Your task to perform on an android device: turn on sleep mode Image 0: 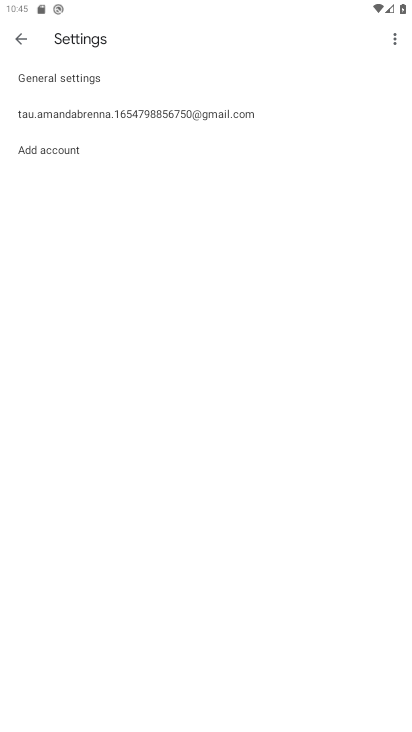
Step 0: press home button
Your task to perform on an android device: turn on sleep mode Image 1: 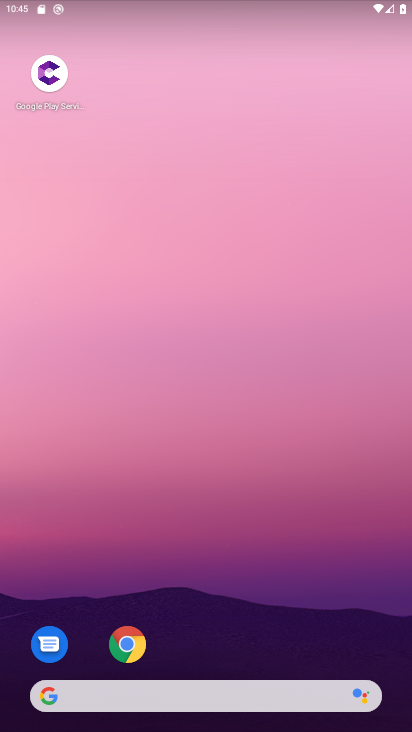
Step 1: drag from (232, 596) to (222, 110)
Your task to perform on an android device: turn on sleep mode Image 2: 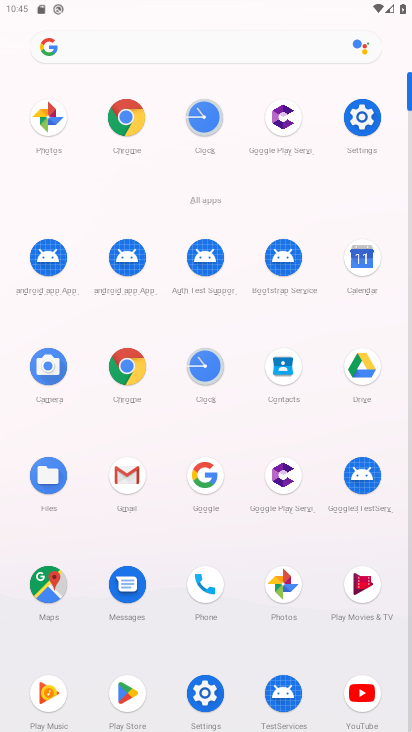
Step 2: click (362, 117)
Your task to perform on an android device: turn on sleep mode Image 3: 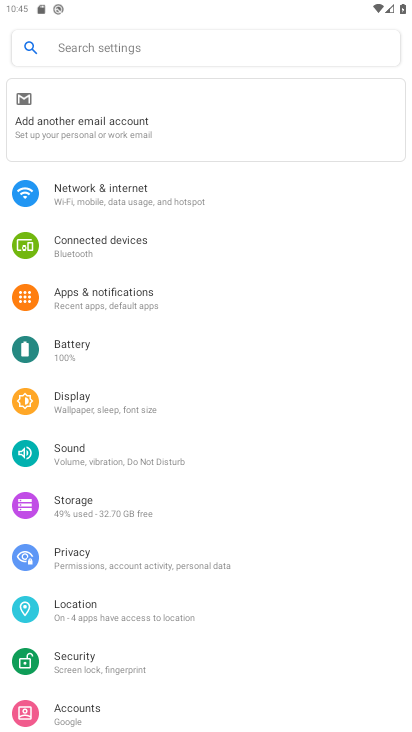
Step 3: click (152, 392)
Your task to perform on an android device: turn on sleep mode Image 4: 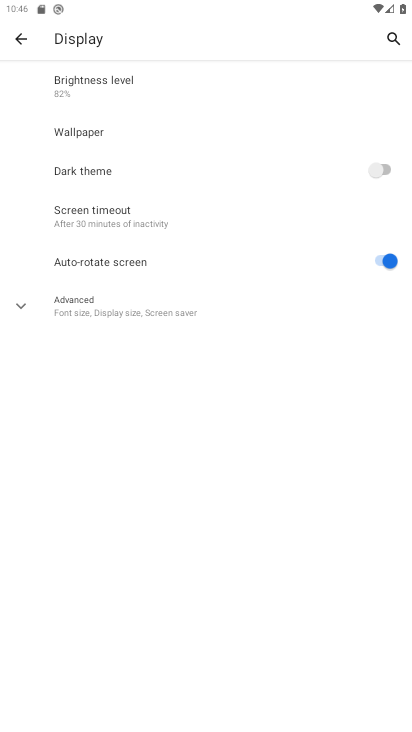
Step 4: click (213, 307)
Your task to perform on an android device: turn on sleep mode Image 5: 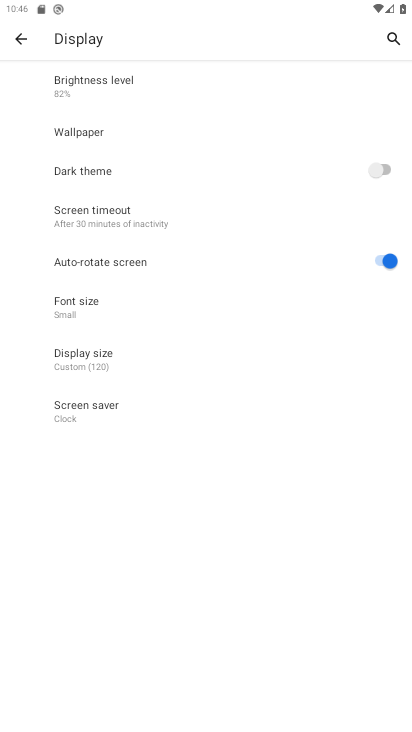
Step 5: task complete